Your task to perform on an android device: turn notification dots off Image 0: 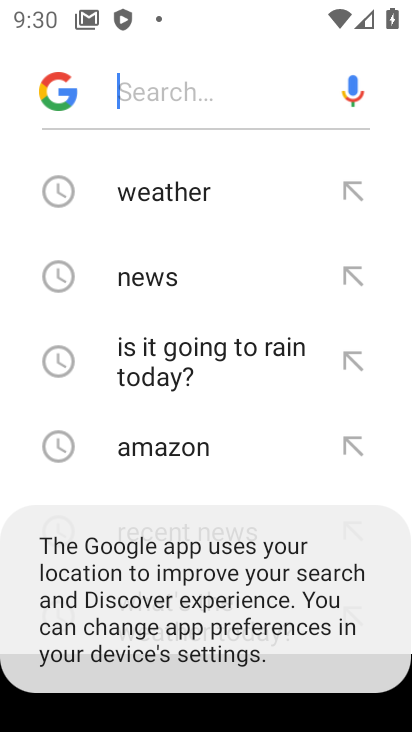
Step 0: press back button
Your task to perform on an android device: turn notification dots off Image 1: 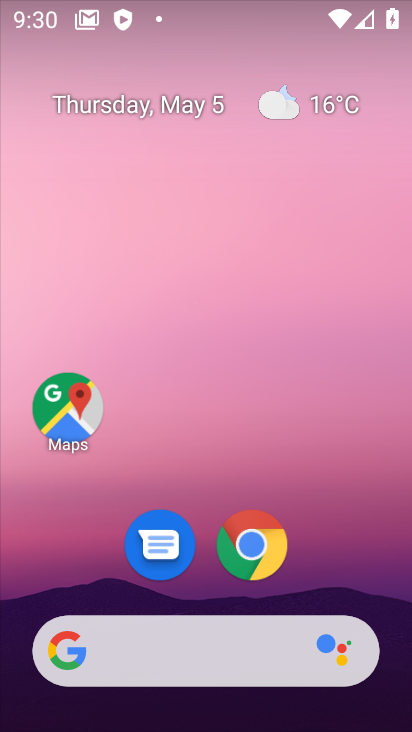
Step 1: drag from (92, 606) to (201, 49)
Your task to perform on an android device: turn notification dots off Image 2: 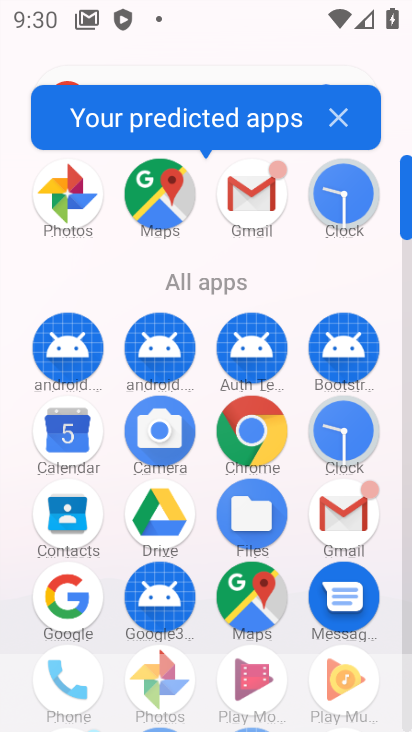
Step 2: drag from (216, 656) to (255, 298)
Your task to perform on an android device: turn notification dots off Image 3: 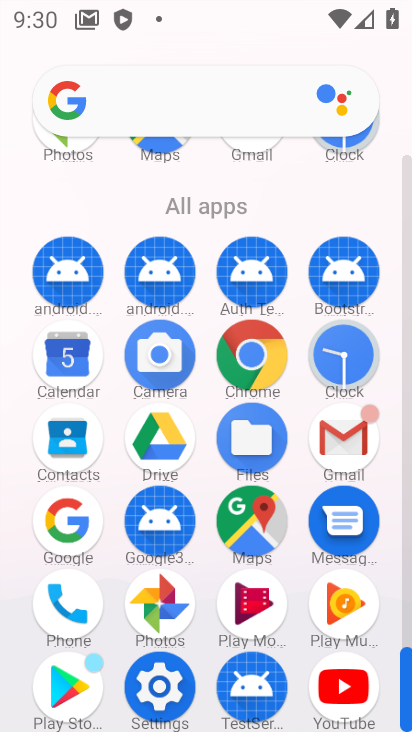
Step 3: click (161, 674)
Your task to perform on an android device: turn notification dots off Image 4: 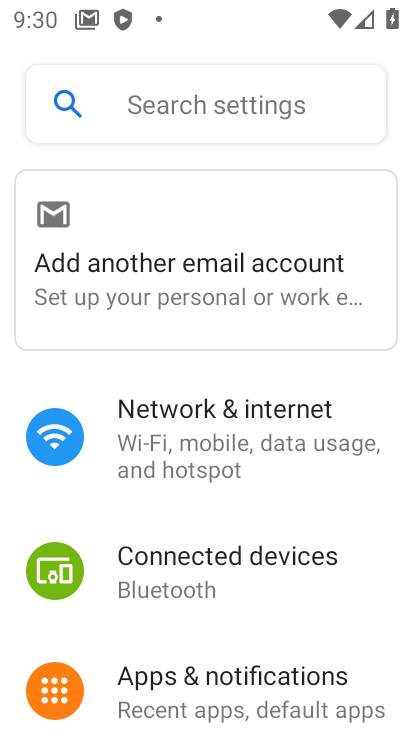
Step 4: click (276, 683)
Your task to perform on an android device: turn notification dots off Image 5: 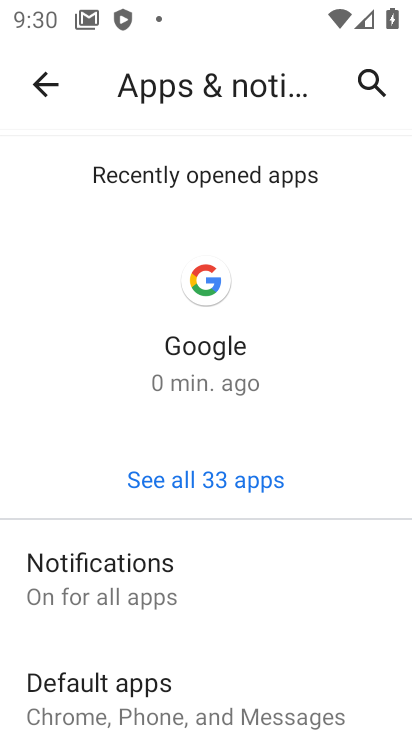
Step 5: drag from (257, 719) to (280, 449)
Your task to perform on an android device: turn notification dots off Image 6: 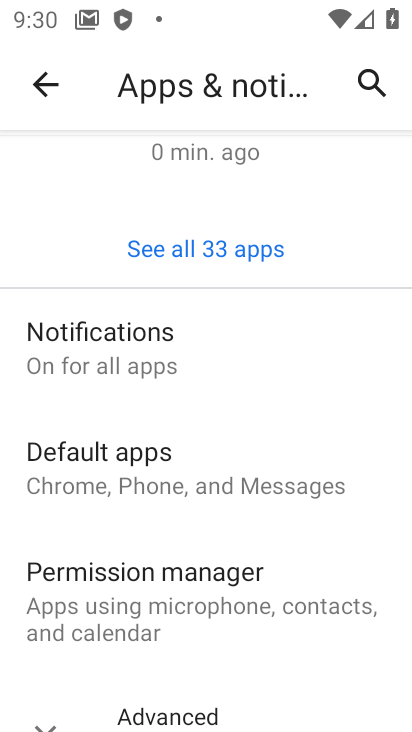
Step 6: click (189, 375)
Your task to perform on an android device: turn notification dots off Image 7: 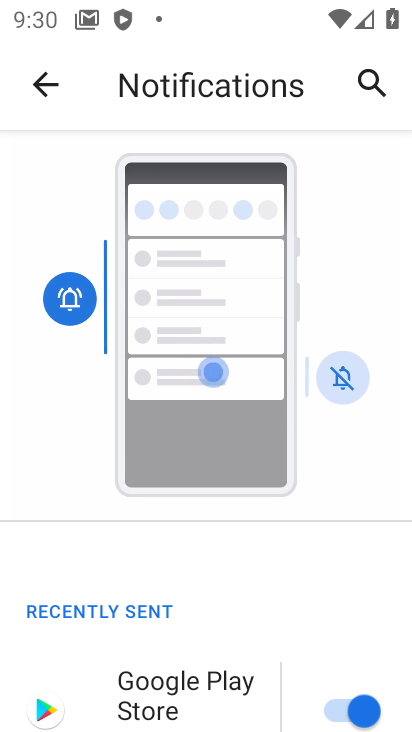
Step 7: drag from (108, 677) to (274, 110)
Your task to perform on an android device: turn notification dots off Image 8: 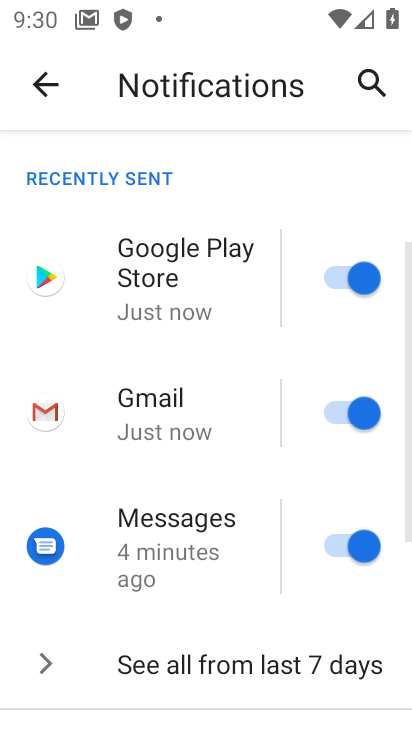
Step 8: drag from (146, 638) to (217, 228)
Your task to perform on an android device: turn notification dots off Image 9: 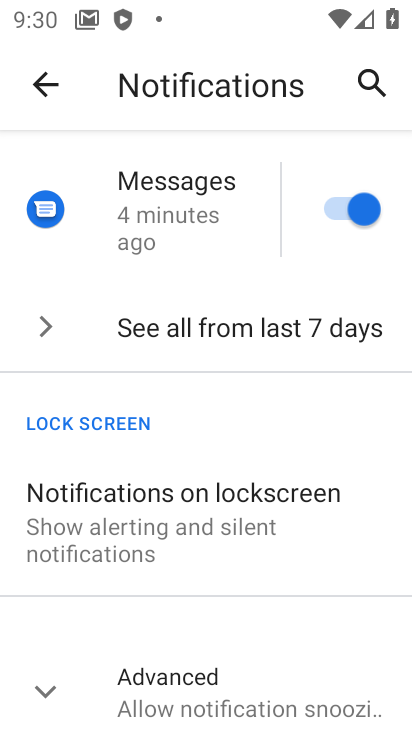
Step 9: drag from (126, 641) to (233, 317)
Your task to perform on an android device: turn notification dots off Image 10: 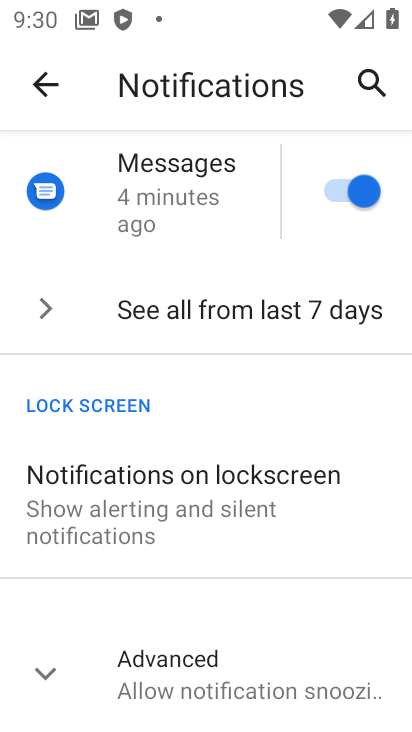
Step 10: click (125, 680)
Your task to perform on an android device: turn notification dots off Image 11: 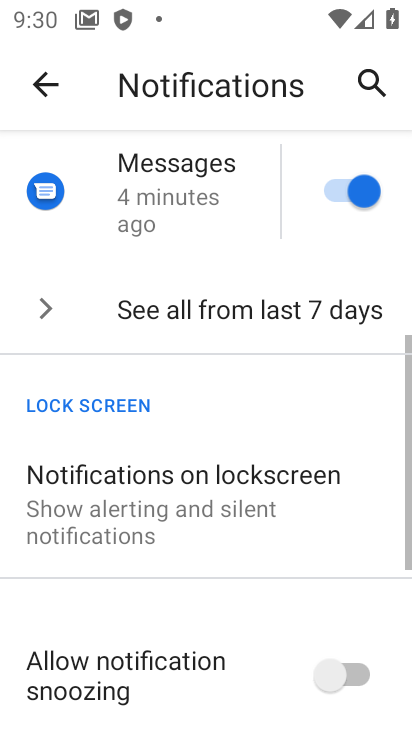
Step 11: drag from (123, 658) to (234, 238)
Your task to perform on an android device: turn notification dots off Image 12: 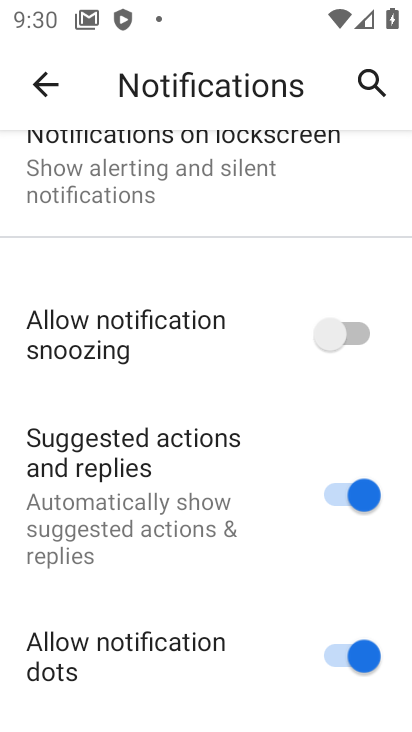
Step 12: click (348, 652)
Your task to perform on an android device: turn notification dots off Image 13: 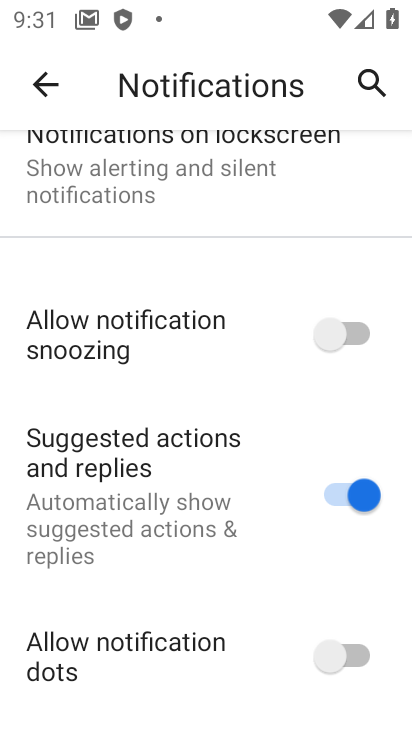
Step 13: task complete